Your task to perform on an android device: Open the stopwatch Image 0: 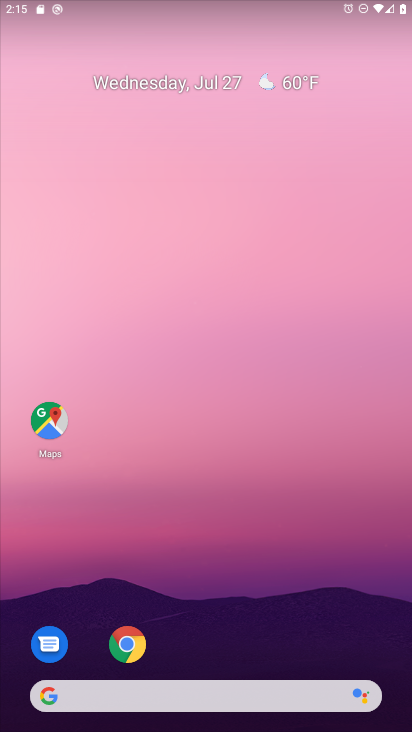
Step 0: drag from (201, 592) to (212, 35)
Your task to perform on an android device: Open the stopwatch Image 1: 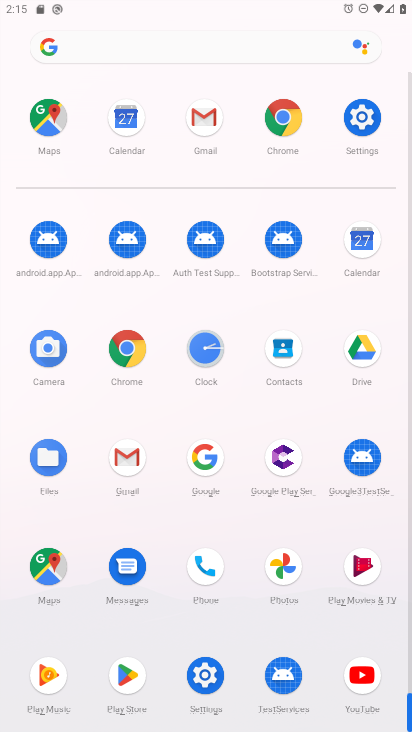
Step 1: click (204, 336)
Your task to perform on an android device: Open the stopwatch Image 2: 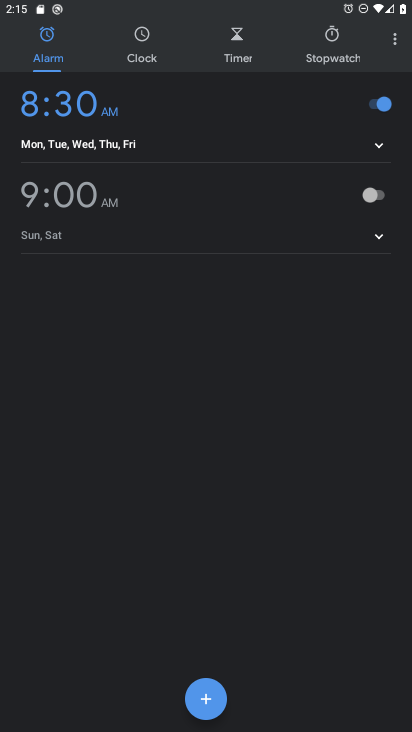
Step 2: click (345, 43)
Your task to perform on an android device: Open the stopwatch Image 3: 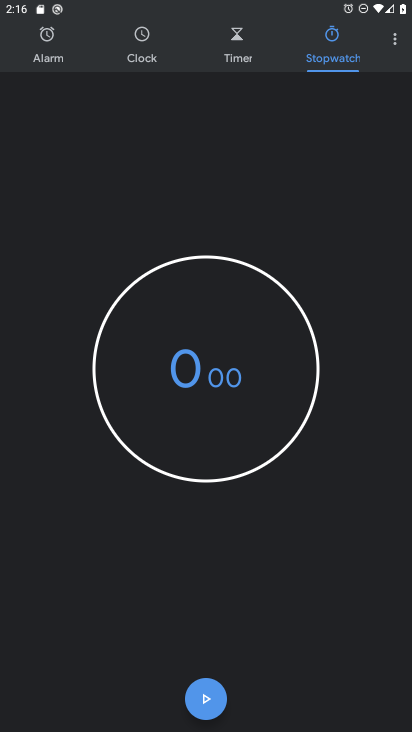
Step 3: click (201, 699)
Your task to perform on an android device: Open the stopwatch Image 4: 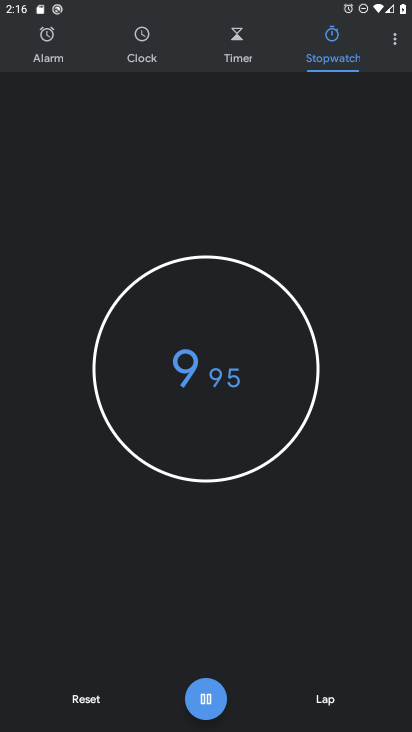
Step 4: task complete